Your task to perform on an android device: Open Chrome and go to settings Image 0: 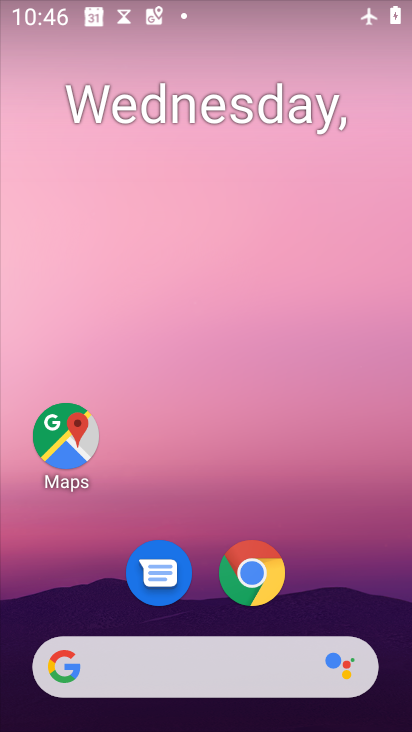
Step 0: drag from (292, 580) to (289, 234)
Your task to perform on an android device: Open Chrome and go to settings Image 1: 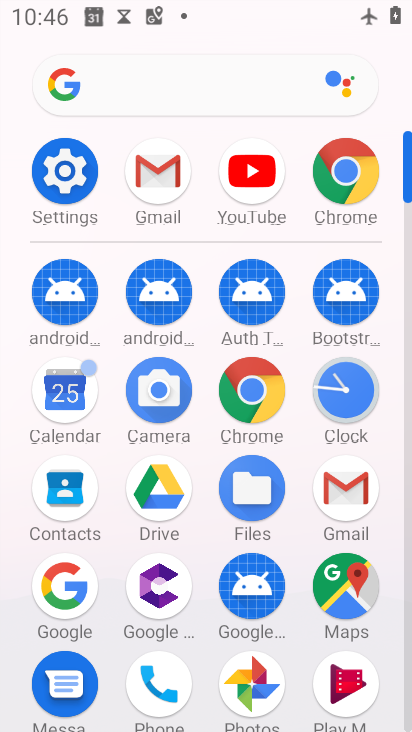
Step 1: click (342, 134)
Your task to perform on an android device: Open Chrome and go to settings Image 2: 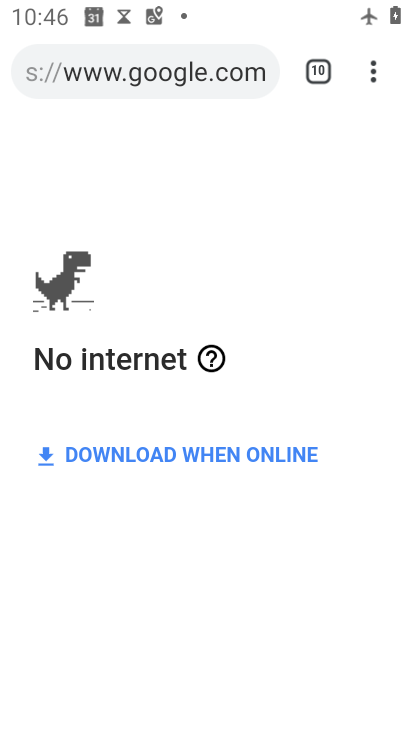
Step 2: click (362, 70)
Your task to perform on an android device: Open Chrome and go to settings Image 3: 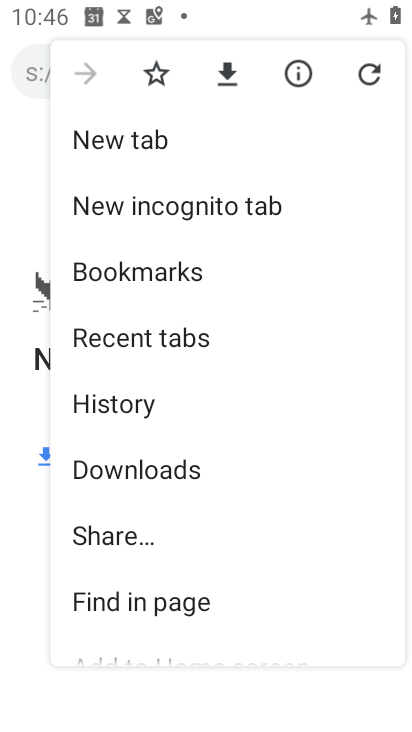
Step 3: drag from (188, 567) to (222, 232)
Your task to perform on an android device: Open Chrome and go to settings Image 4: 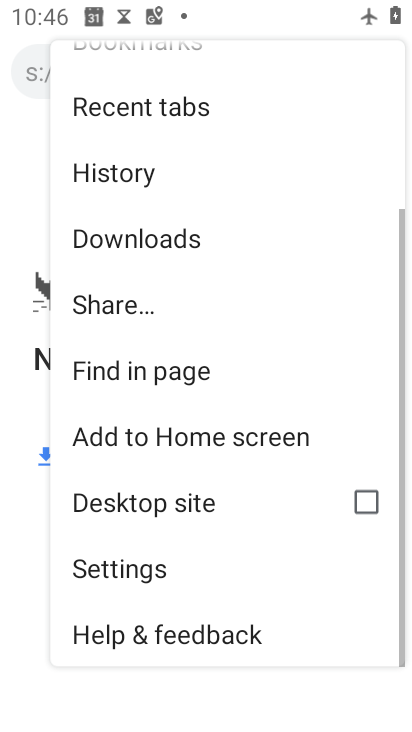
Step 4: click (152, 575)
Your task to perform on an android device: Open Chrome and go to settings Image 5: 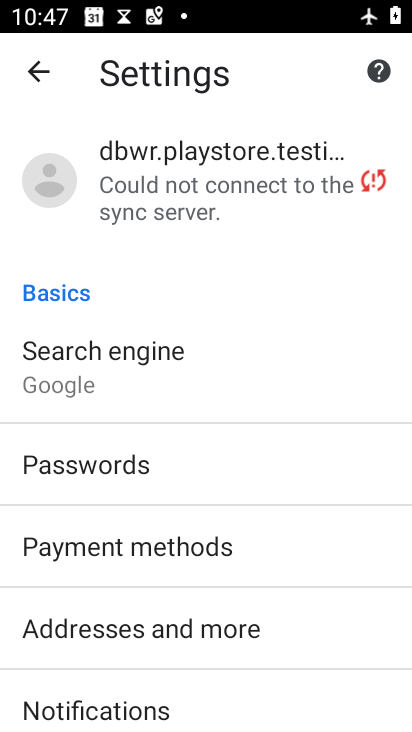
Step 5: task complete